Your task to perform on an android device: turn on javascript in the chrome app Image 0: 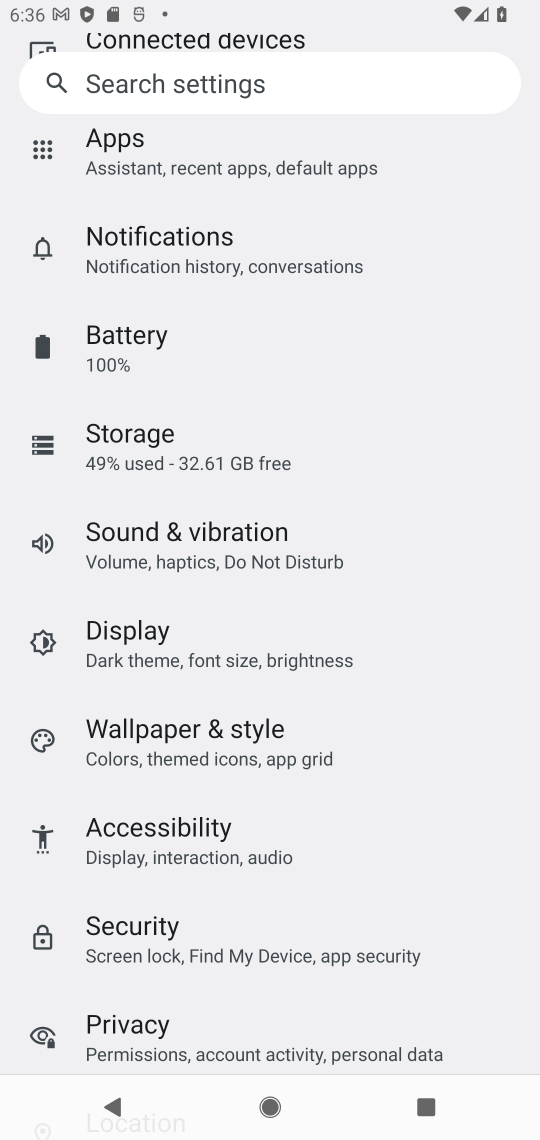
Step 0: press home button
Your task to perform on an android device: turn on javascript in the chrome app Image 1: 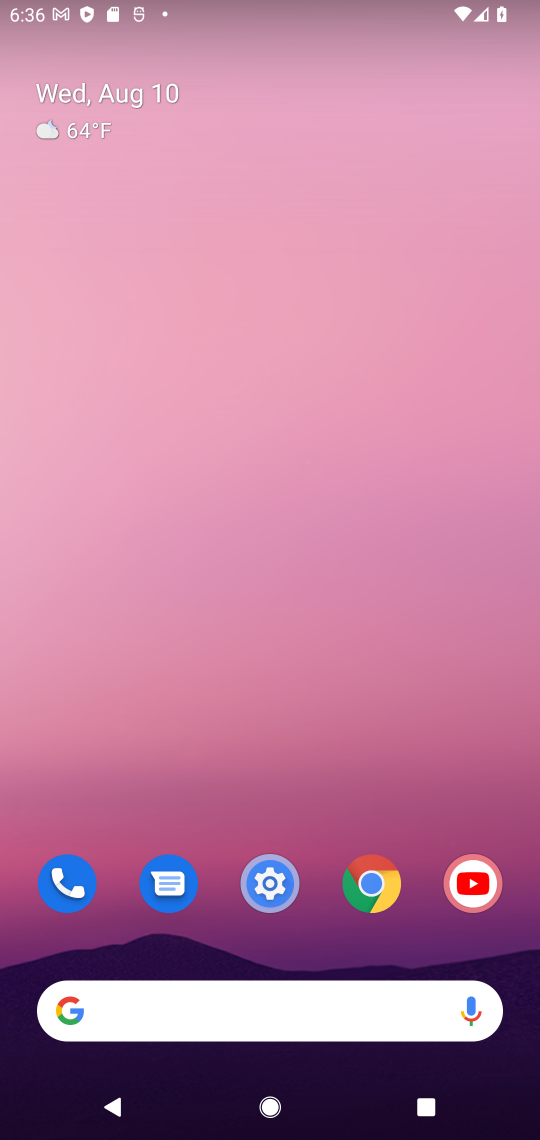
Step 1: click (373, 874)
Your task to perform on an android device: turn on javascript in the chrome app Image 2: 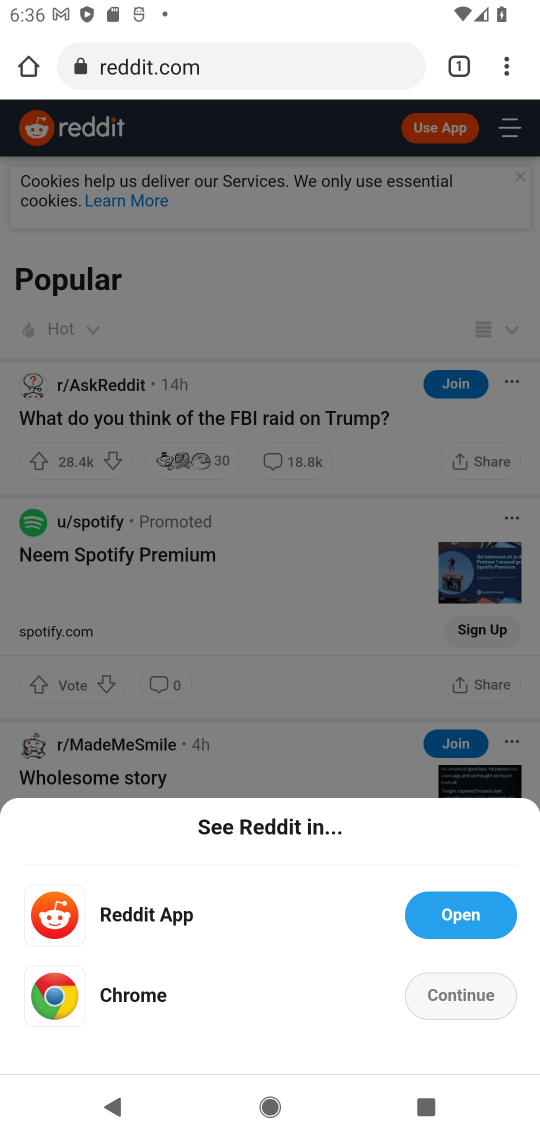
Step 2: click (502, 58)
Your task to perform on an android device: turn on javascript in the chrome app Image 3: 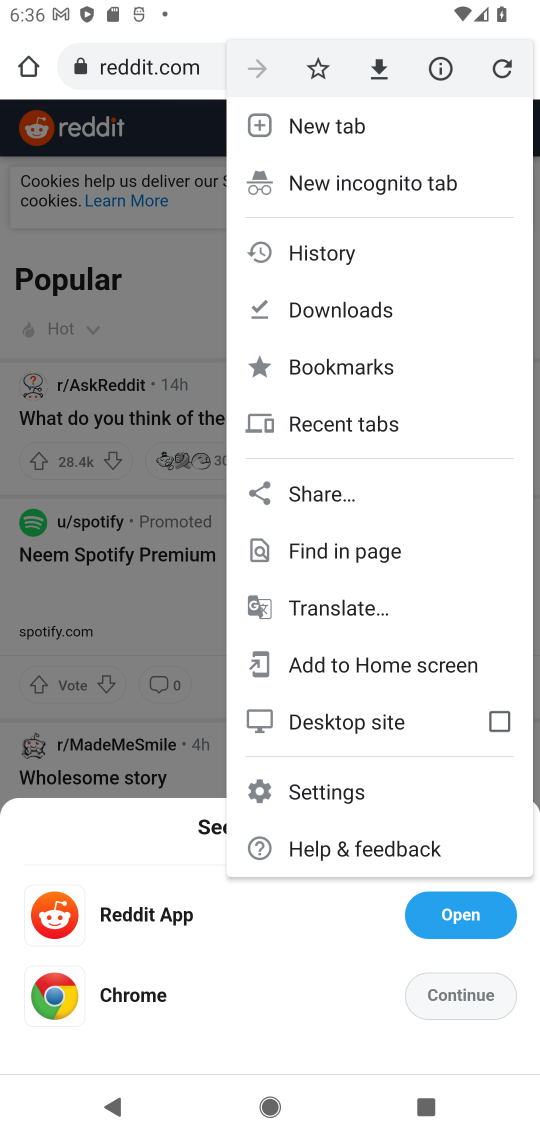
Step 3: click (321, 787)
Your task to perform on an android device: turn on javascript in the chrome app Image 4: 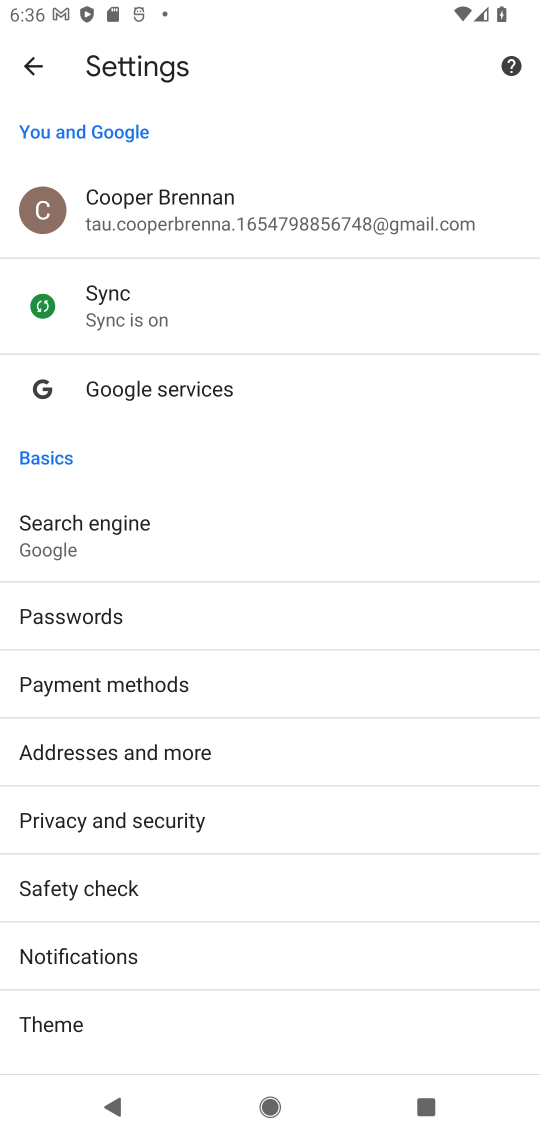
Step 4: drag from (254, 915) to (277, 163)
Your task to perform on an android device: turn on javascript in the chrome app Image 5: 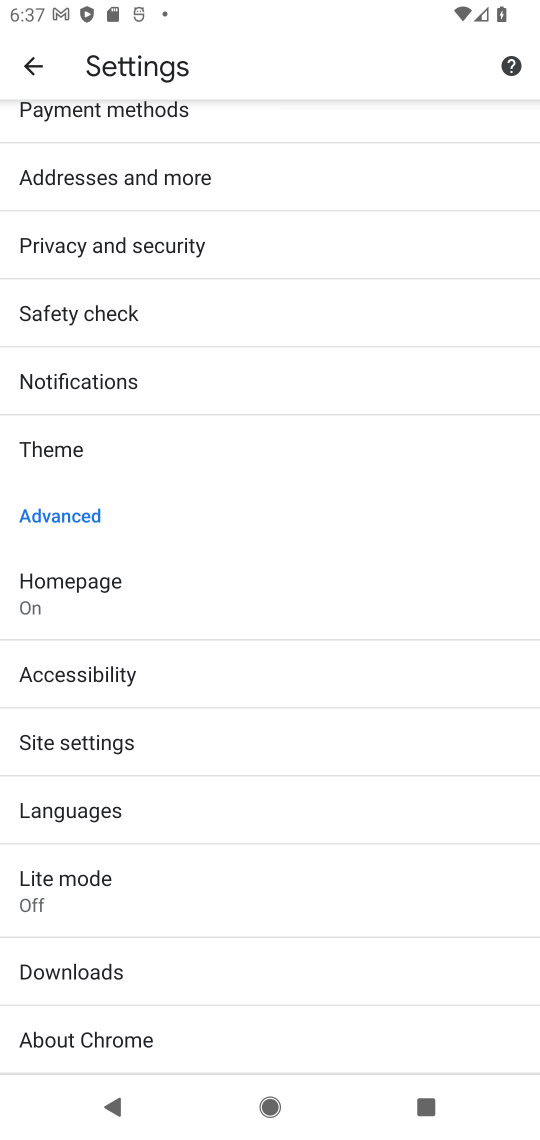
Step 5: click (85, 734)
Your task to perform on an android device: turn on javascript in the chrome app Image 6: 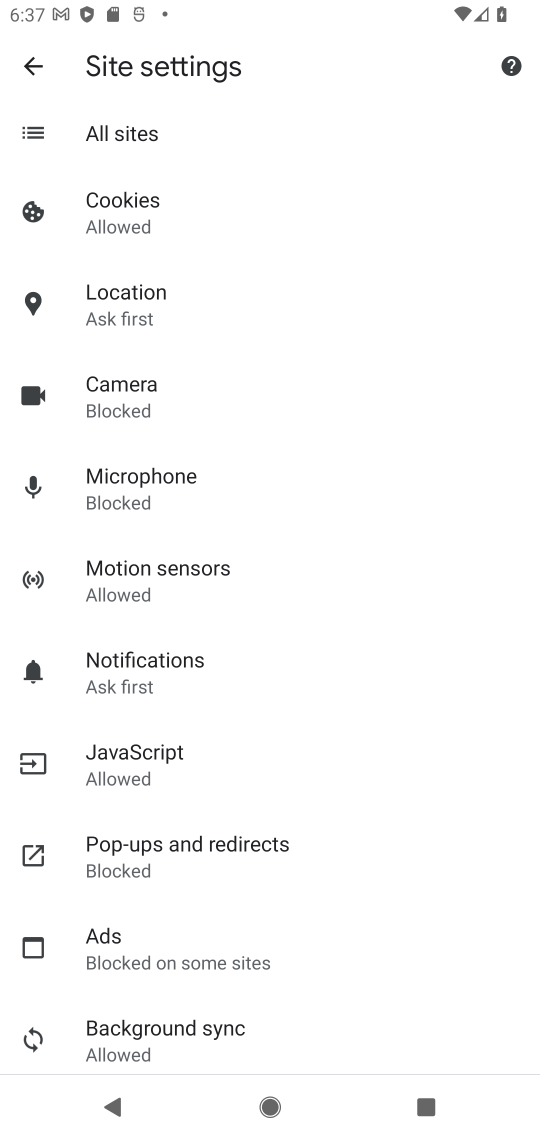
Step 6: click (142, 762)
Your task to perform on an android device: turn on javascript in the chrome app Image 7: 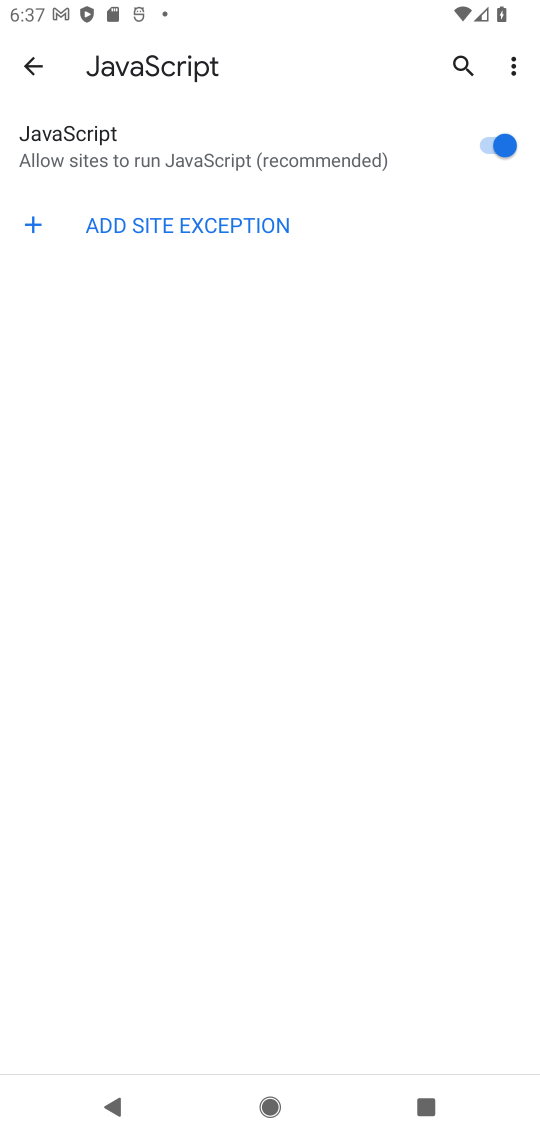
Step 7: task complete